Your task to perform on an android device: Open Android settings Image 0: 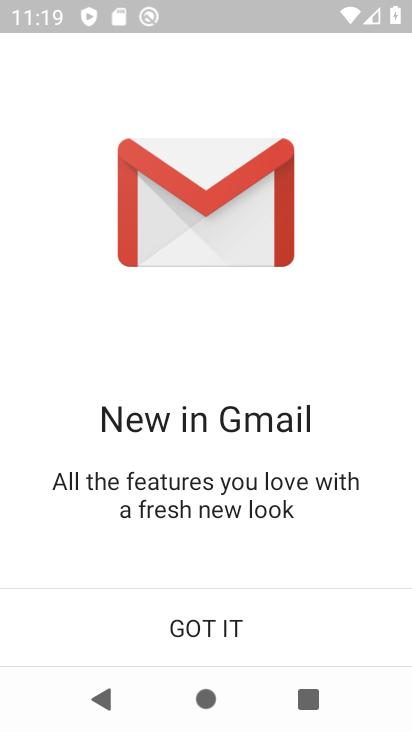
Step 0: press back button
Your task to perform on an android device: Open Android settings Image 1: 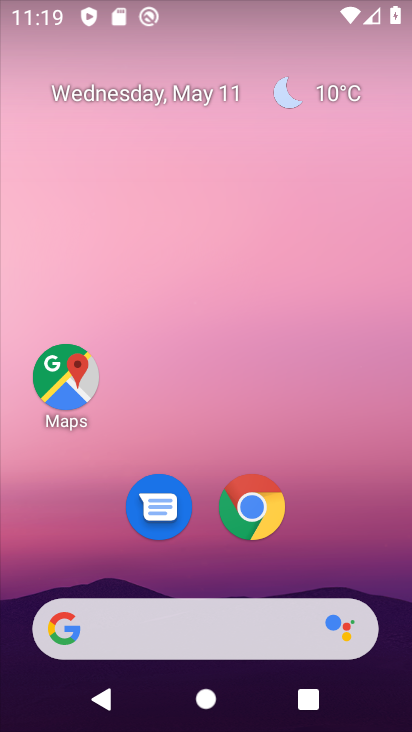
Step 1: drag from (167, 596) to (268, 83)
Your task to perform on an android device: Open Android settings Image 2: 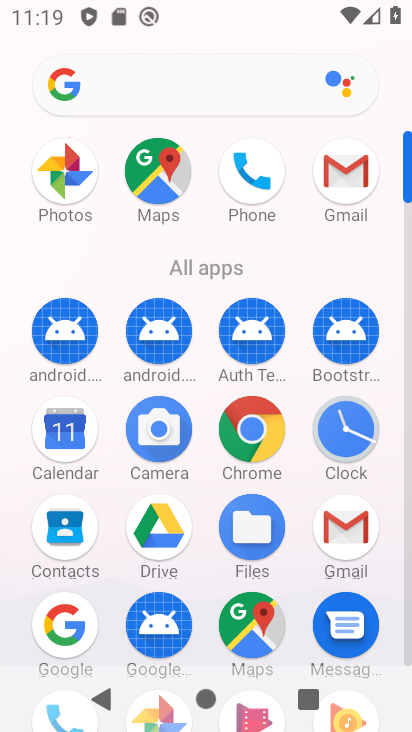
Step 2: drag from (166, 606) to (233, 410)
Your task to perform on an android device: Open Android settings Image 3: 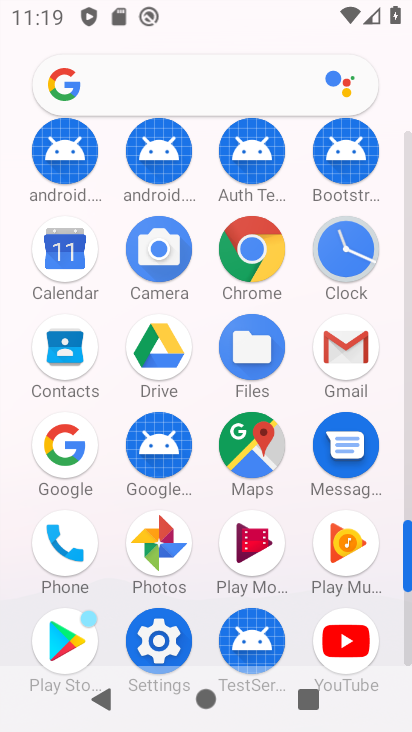
Step 3: click (171, 645)
Your task to perform on an android device: Open Android settings Image 4: 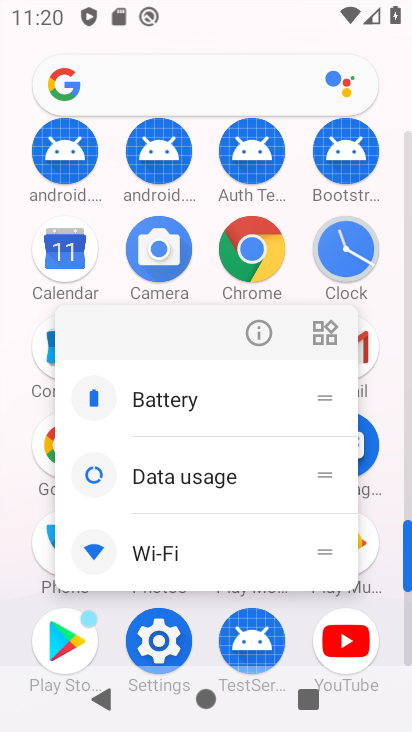
Step 4: click (159, 641)
Your task to perform on an android device: Open Android settings Image 5: 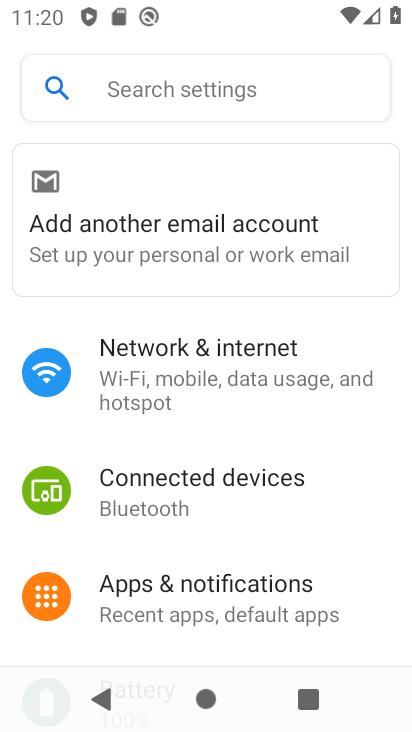
Step 5: task complete